Your task to perform on an android device: Go to Wikipedia Image 0: 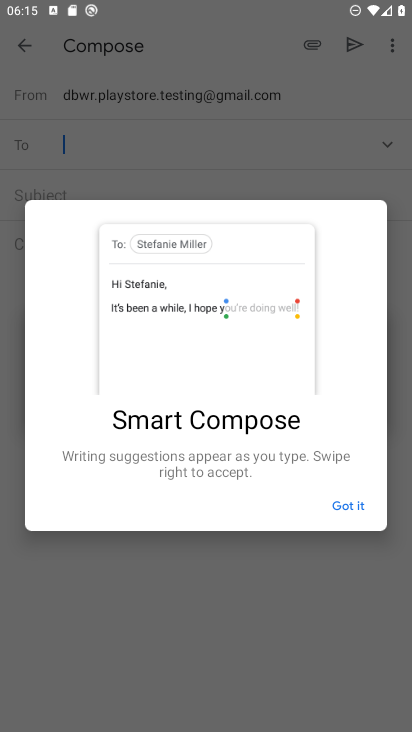
Step 0: press home button
Your task to perform on an android device: Go to Wikipedia Image 1: 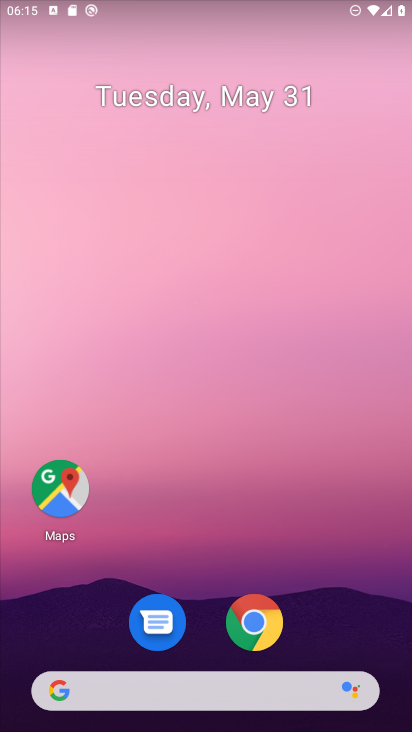
Step 1: drag from (277, 684) to (297, 12)
Your task to perform on an android device: Go to Wikipedia Image 2: 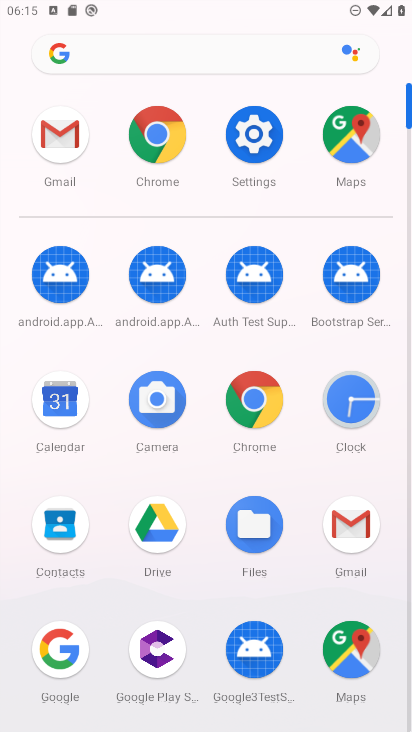
Step 2: click (255, 392)
Your task to perform on an android device: Go to Wikipedia Image 3: 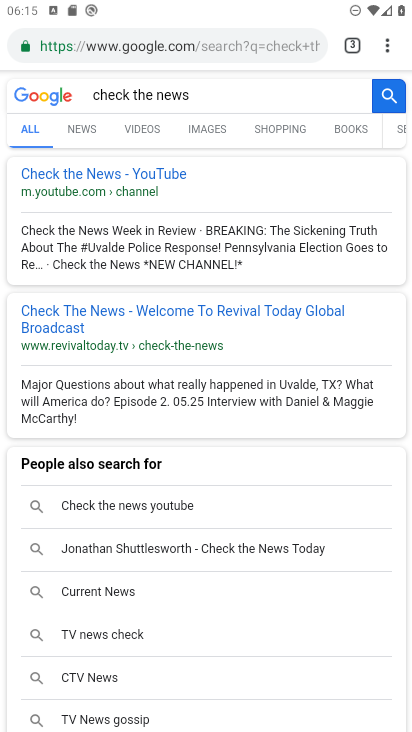
Step 3: drag from (387, 40) to (299, 97)
Your task to perform on an android device: Go to Wikipedia Image 4: 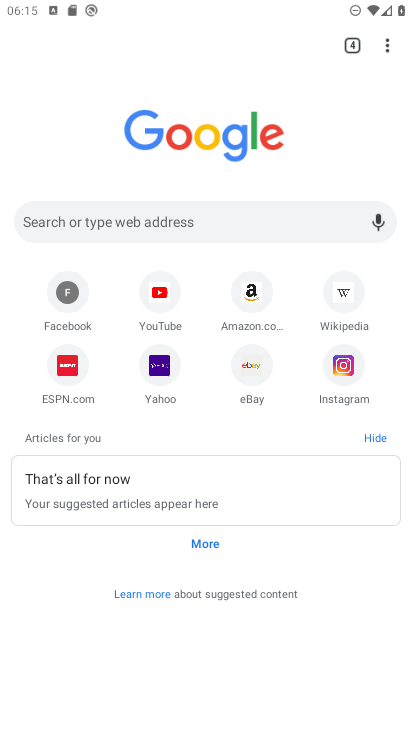
Step 4: click (352, 298)
Your task to perform on an android device: Go to Wikipedia Image 5: 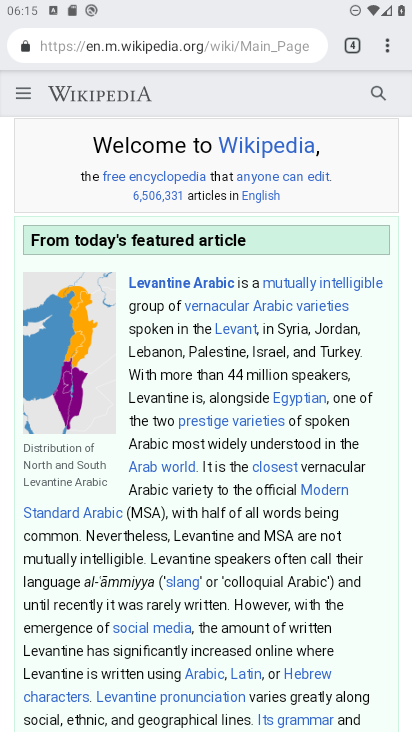
Step 5: task complete